Your task to perform on an android device: Empty the shopping cart on target.com. Search for "logitech g pro" on target.com, select the first entry, add it to the cart, then select checkout. Image 0: 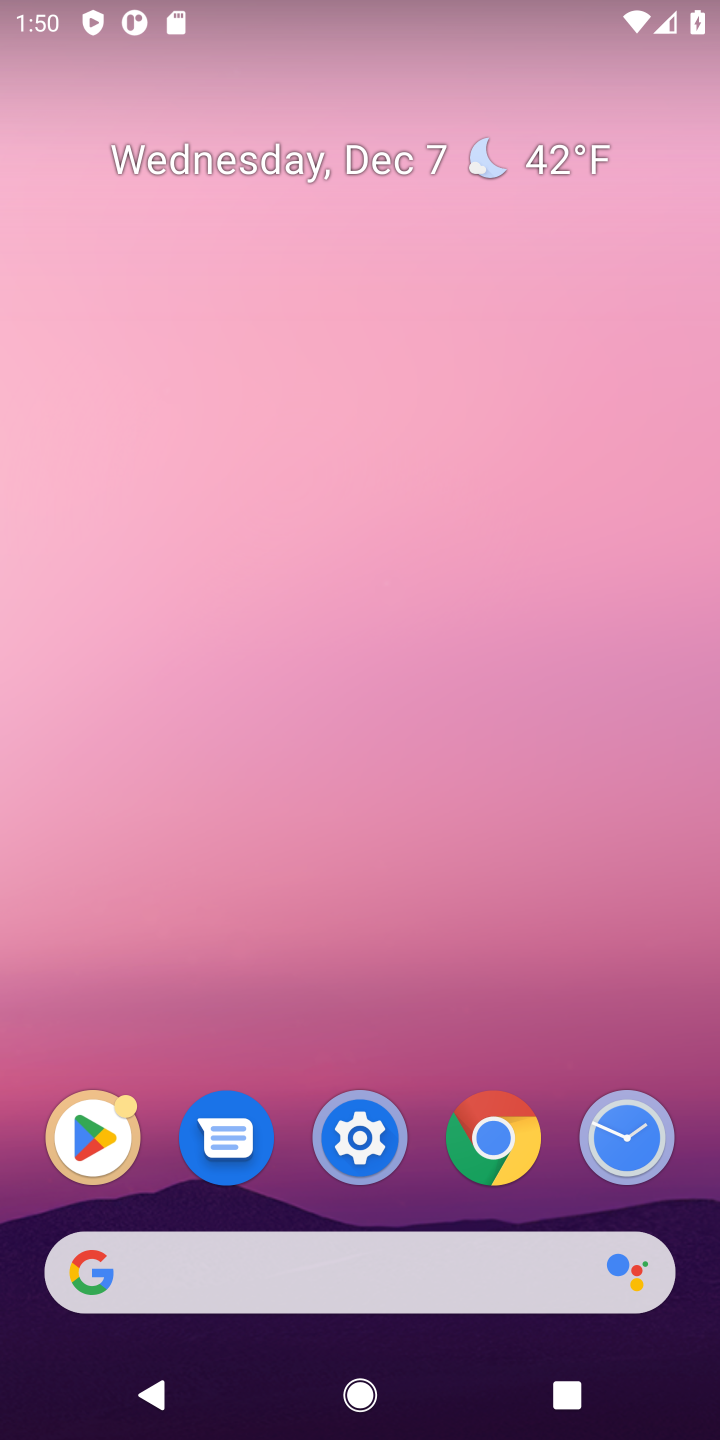
Step 0: click (410, 1291)
Your task to perform on an android device: Empty the shopping cart on target.com. Search for "logitech g pro" on target.com, select the first entry, add it to the cart, then select checkout. Image 1: 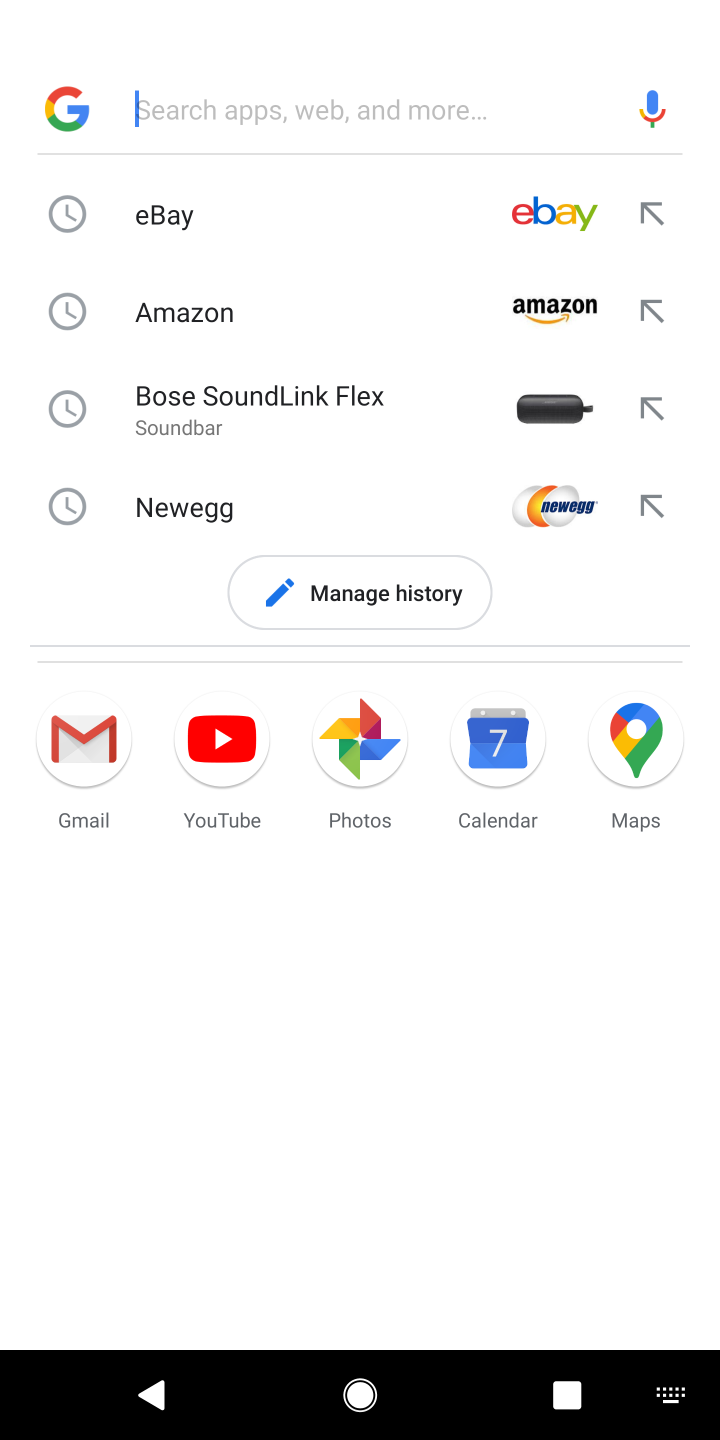
Step 1: type "target"
Your task to perform on an android device: Empty the shopping cart on target.com. Search for "logitech g pro" on target.com, select the first entry, add it to the cart, then select checkout. Image 2: 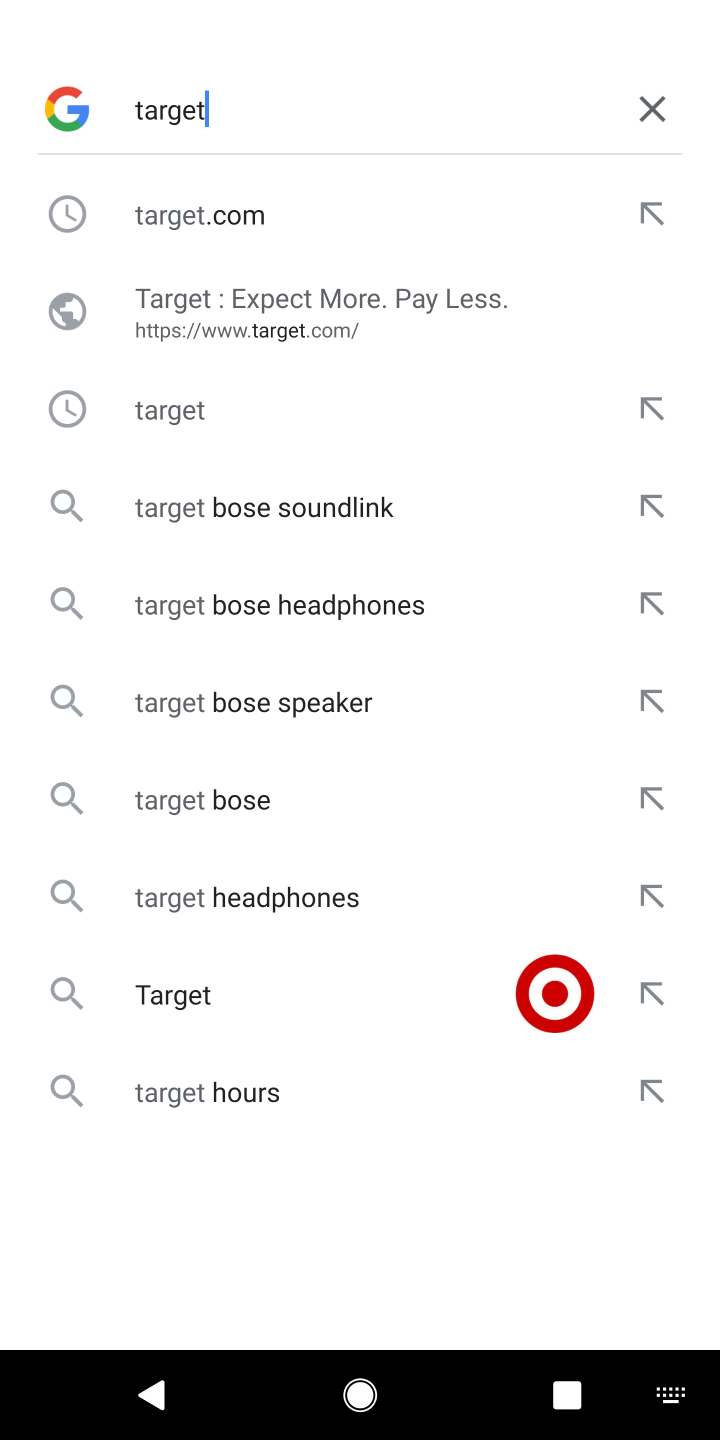
Step 2: click (297, 230)
Your task to perform on an android device: Empty the shopping cart on target.com. Search for "logitech g pro" on target.com, select the first entry, add it to the cart, then select checkout. Image 3: 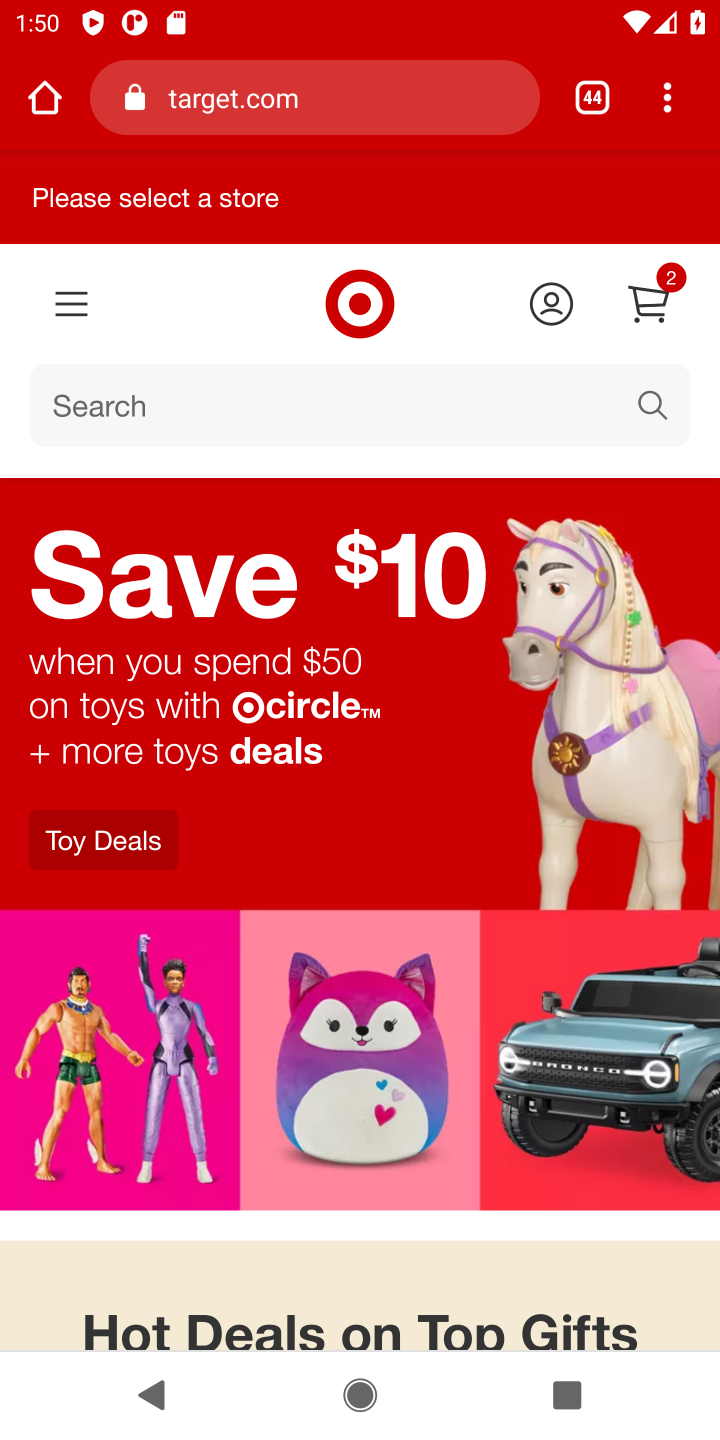
Step 3: click (135, 420)
Your task to perform on an android device: Empty the shopping cart on target.com. Search for "logitech g pro" on target.com, select the first entry, add it to the cart, then select checkout. Image 4: 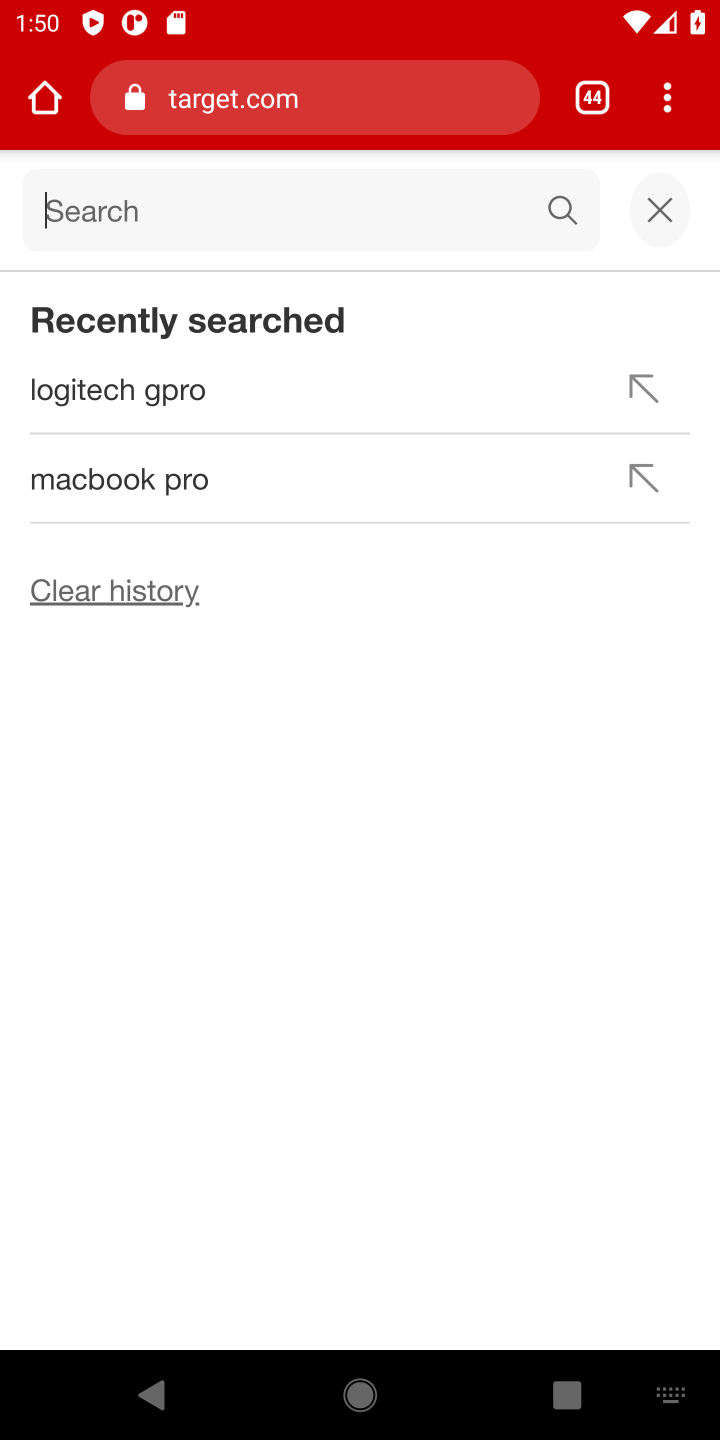
Step 4: type "logitech"
Your task to perform on an android device: Empty the shopping cart on target.com. Search for "logitech g pro" on target.com, select the first entry, add it to the cart, then select checkout. Image 5: 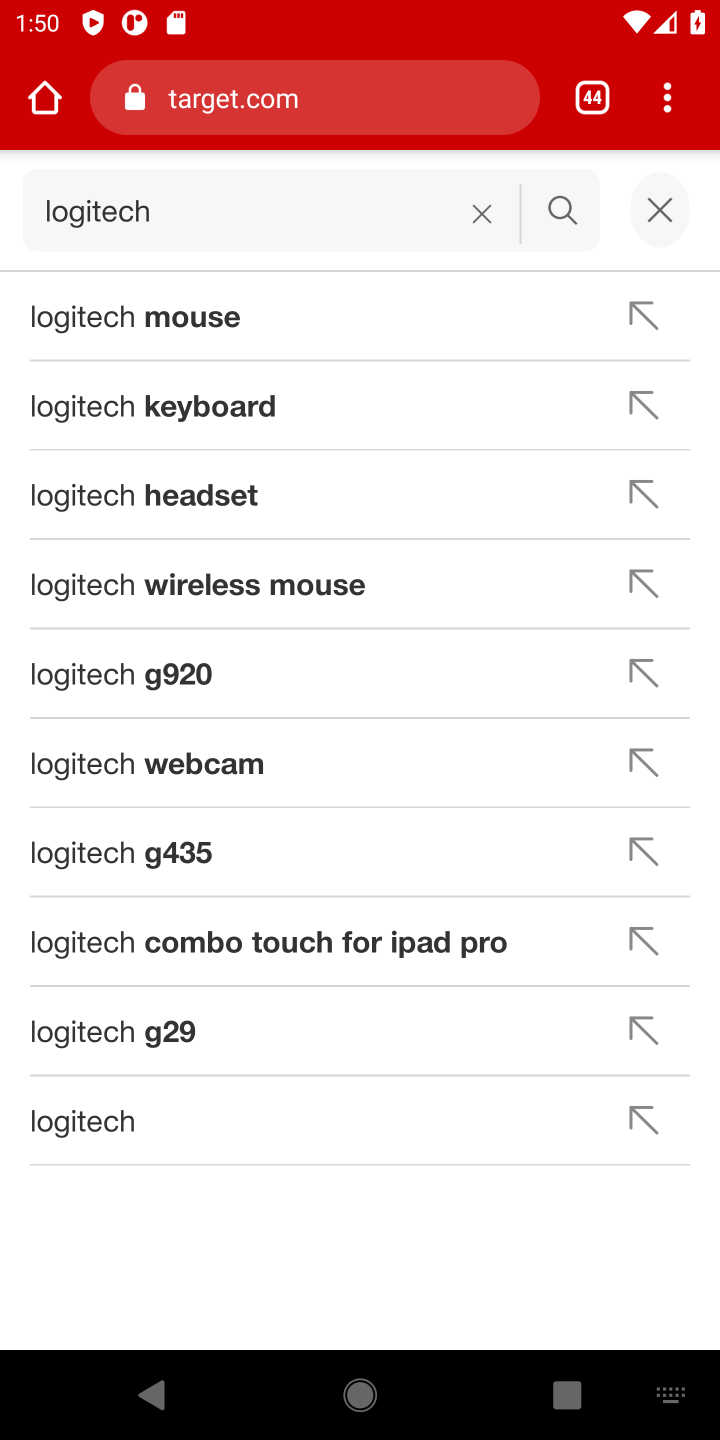
Step 5: click (571, 201)
Your task to perform on an android device: Empty the shopping cart on target.com. Search for "logitech g pro" on target.com, select the first entry, add it to the cart, then select checkout. Image 6: 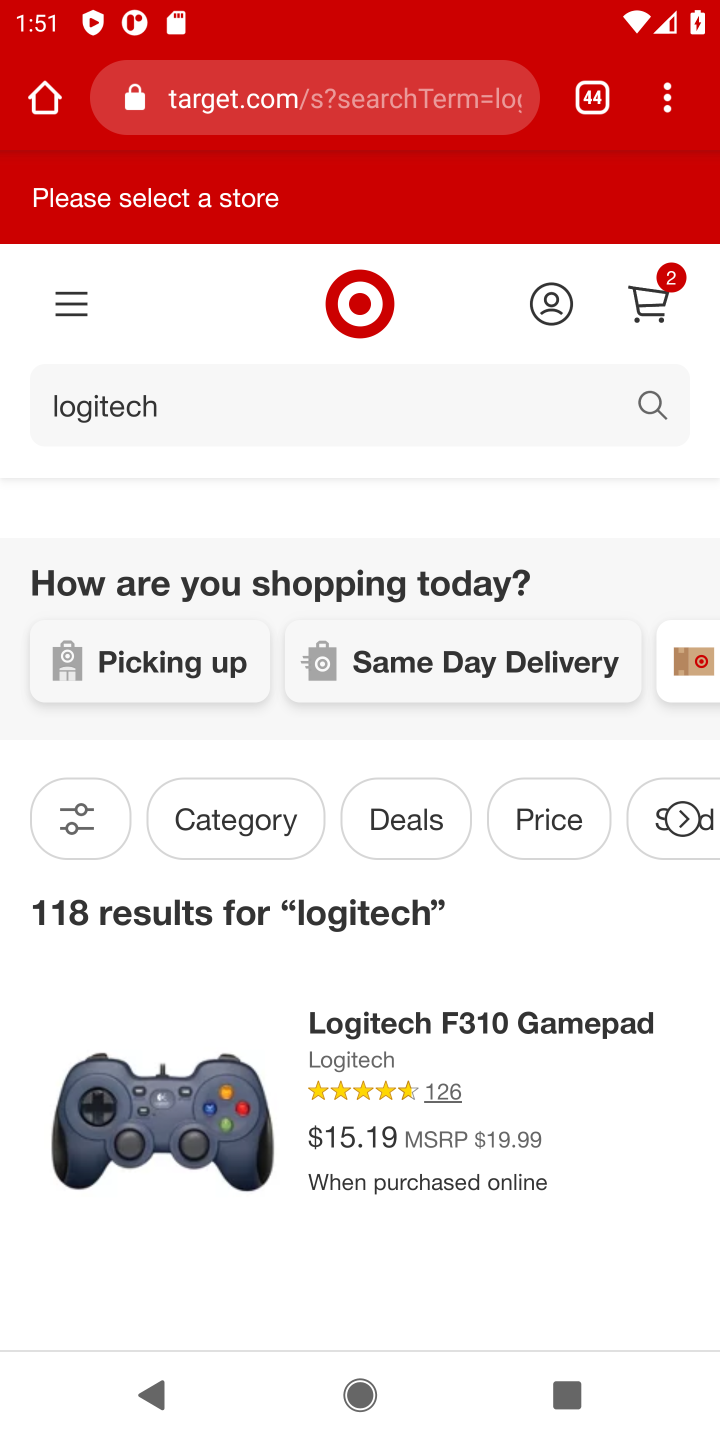
Step 6: click (359, 1105)
Your task to perform on an android device: Empty the shopping cart on target.com. Search for "logitech g pro" on target.com, select the first entry, add it to the cart, then select checkout. Image 7: 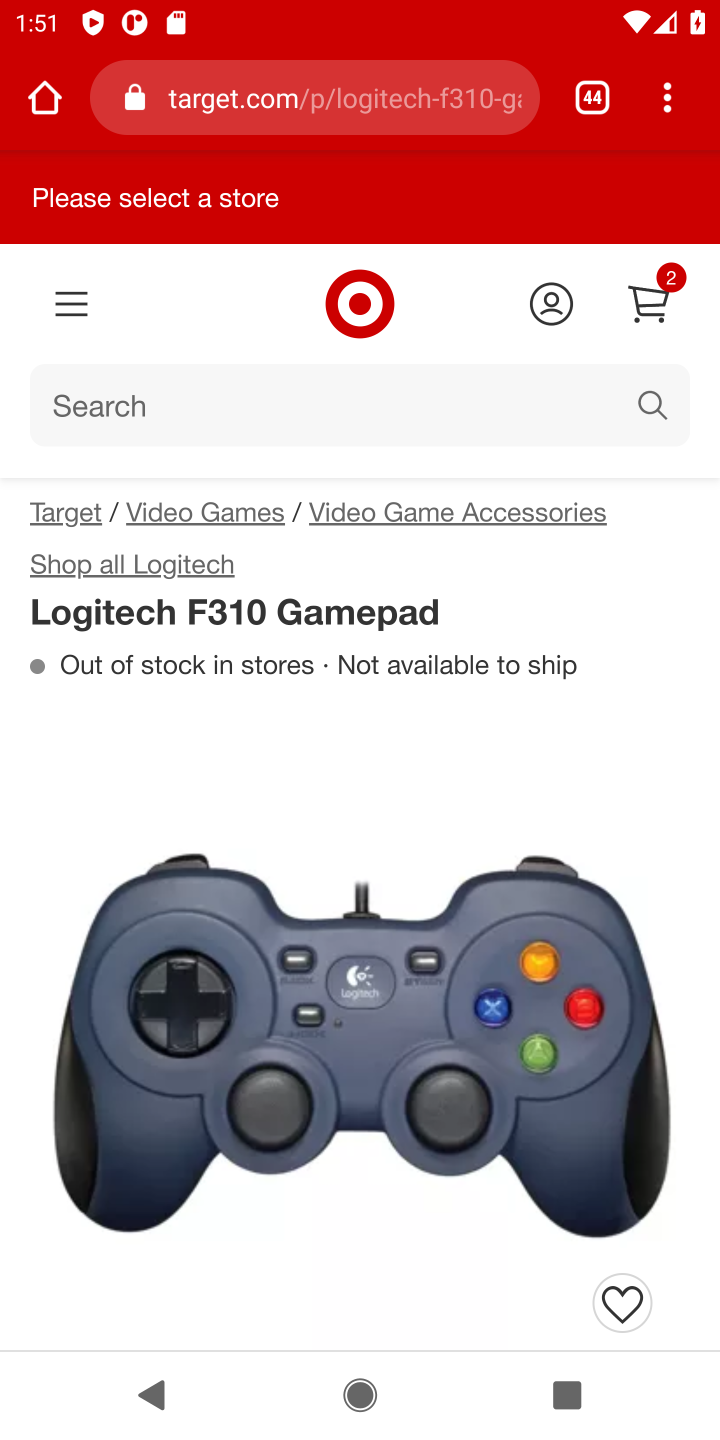
Step 7: drag from (303, 1202) to (328, 448)
Your task to perform on an android device: Empty the shopping cart on target.com. Search for "logitech g pro" on target.com, select the first entry, add it to the cart, then select checkout. Image 8: 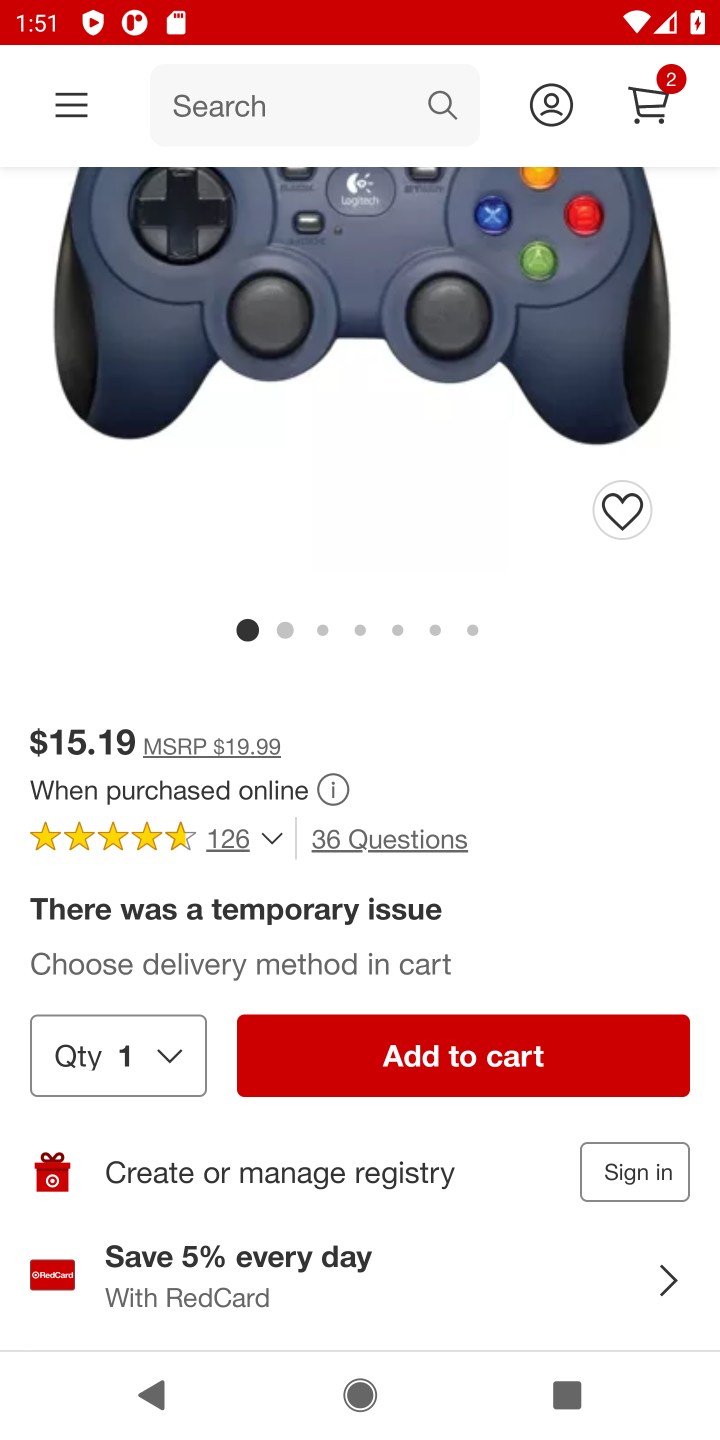
Step 8: click (342, 1042)
Your task to perform on an android device: Empty the shopping cart on target.com. Search for "logitech g pro" on target.com, select the first entry, add it to the cart, then select checkout. Image 9: 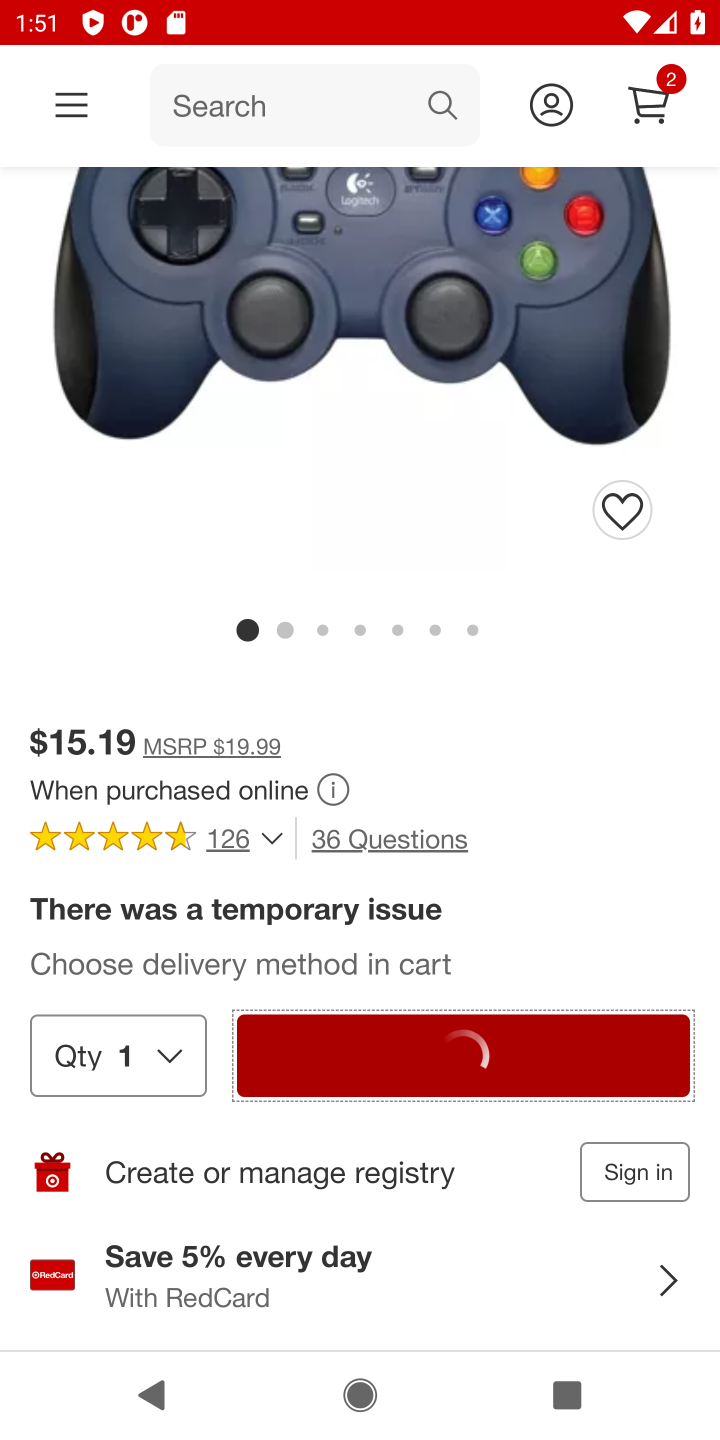
Step 9: task complete